Your task to perform on an android device: all mails in gmail Image 0: 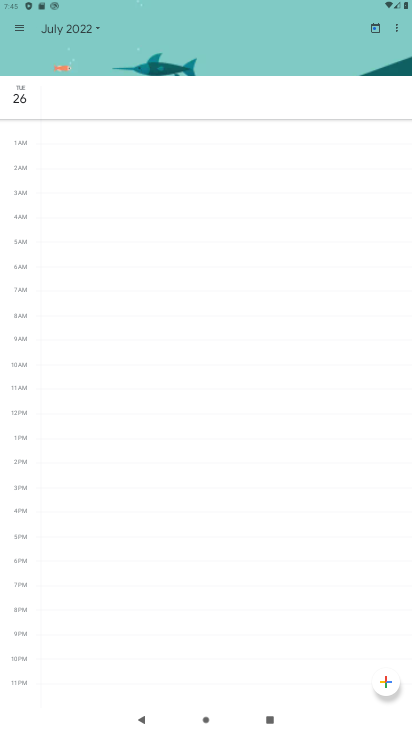
Step 0: press home button
Your task to perform on an android device: all mails in gmail Image 1: 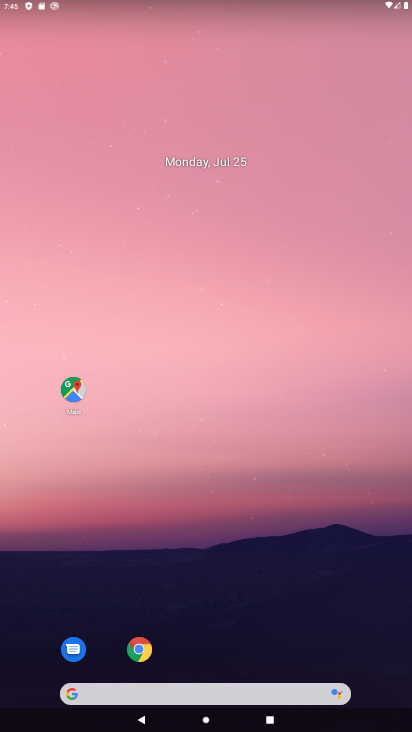
Step 1: drag from (390, 670) to (365, 259)
Your task to perform on an android device: all mails in gmail Image 2: 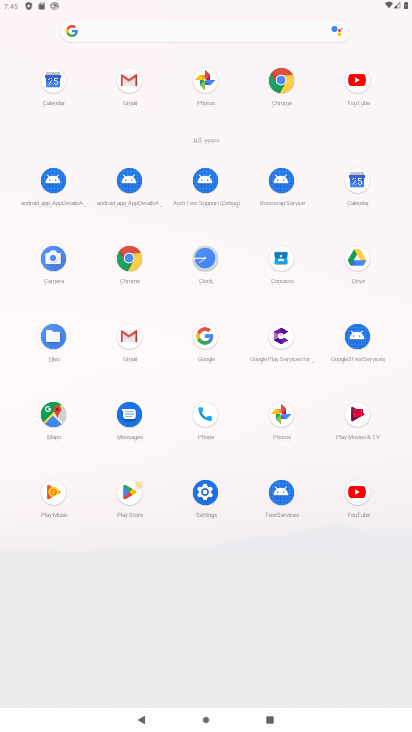
Step 2: click (131, 337)
Your task to perform on an android device: all mails in gmail Image 3: 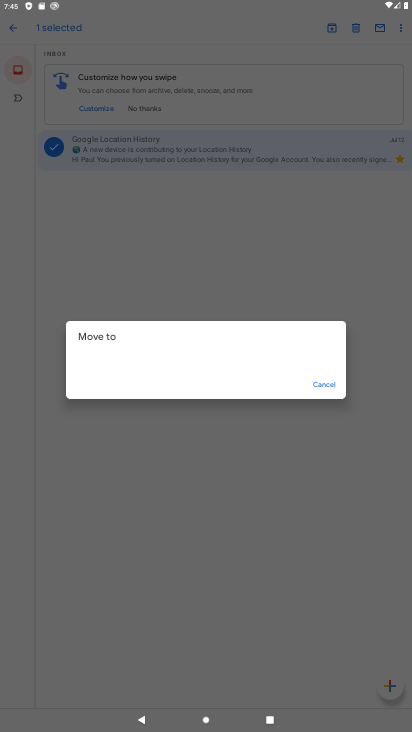
Step 3: click (326, 379)
Your task to perform on an android device: all mails in gmail Image 4: 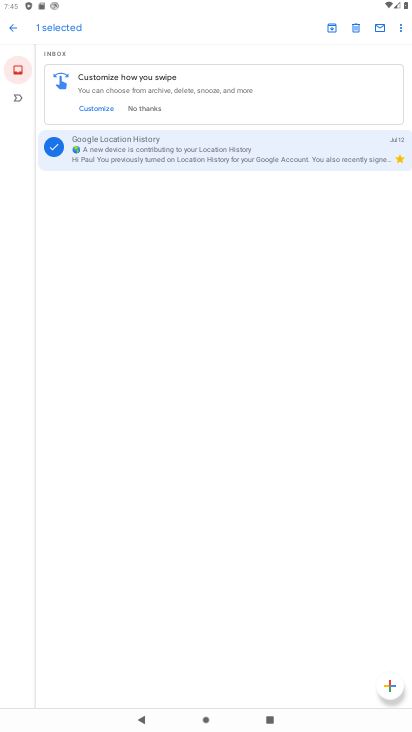
Step 4: press back button
Your task to perform on an android device: all mails in gmail Image 5: 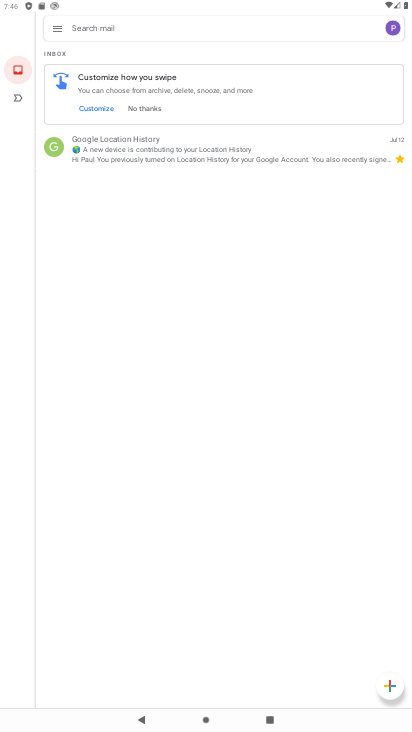
Step 5: click (54, 32)
Your task to perform on an android device: all mails in gmail Image 6: 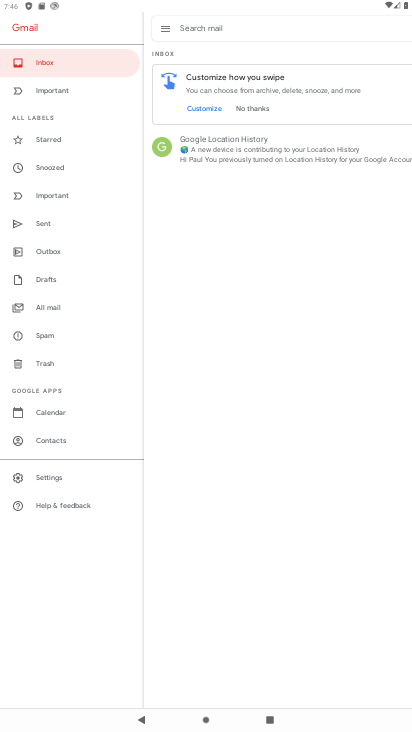
Step 6: click (45, 302)
Your task to perform on an android device: all mails in gmail Image 7: 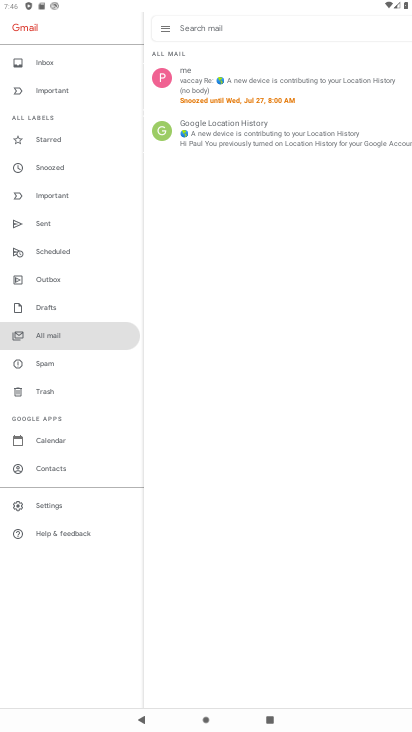
Step 7: task complete